Your task to perform on an android device: toggle sleep mode Image 0: 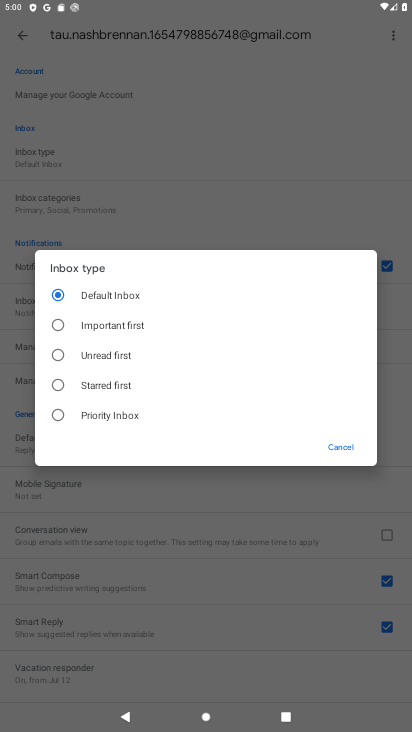
Step 0: press home button
Your task to perform on an android device: toggle sleep mode Image 1: 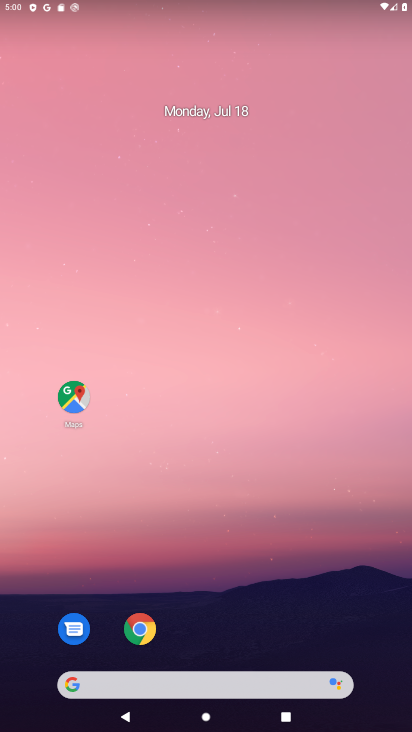
Step 1: drag from (291, 587) to (255, 11)
Your task to perform on an android device: toggle sleep mode Image 2: 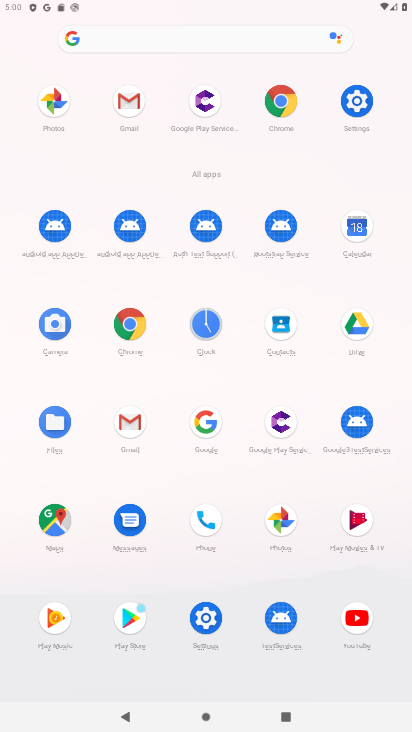
Step 2: click (355, 100)
Your task to perform on an android device: toggle sleep mode Image 3: 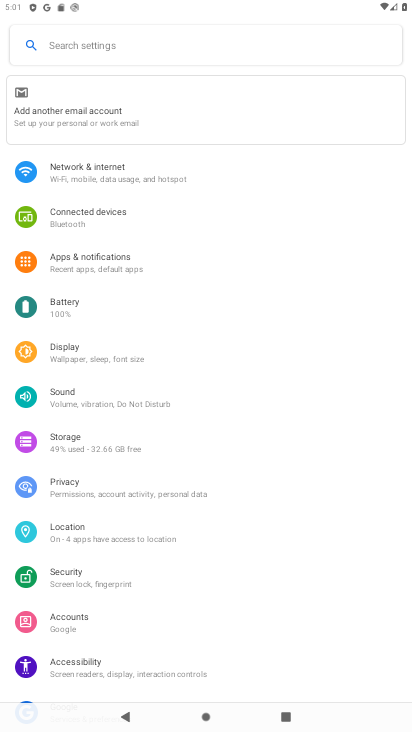
Step 3: click (92, 355)
Your task to perform on an android device: toggle sleep mode Image 4: 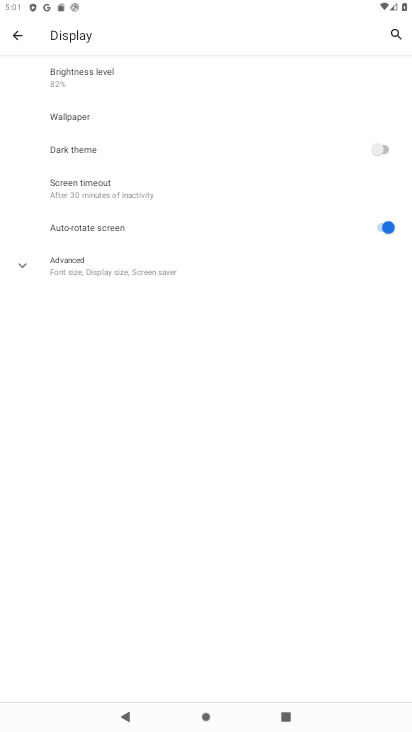
Step 4: click (126, 192)
Your task to perform on an android device: toggle sleep mode Image 5: 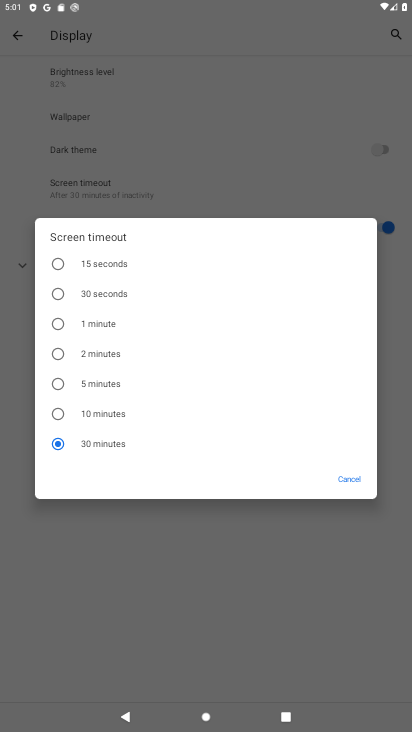
Step 5: click (88, 411)
Your task to perform on an android device: toggle sleep mode Image 6: 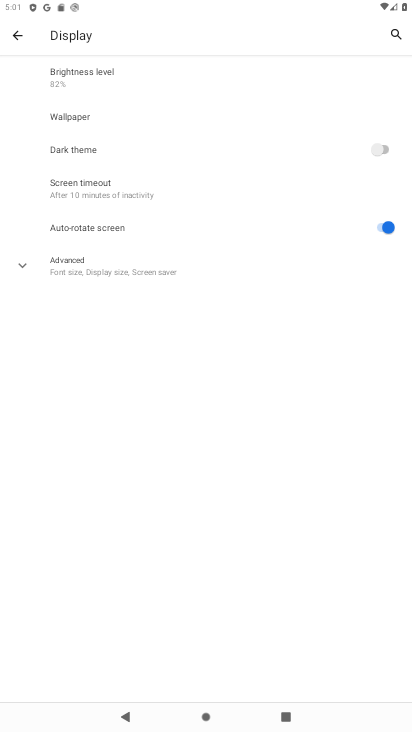
Step 6: task complete